Your task to perform on an android device: toggle notifications settings in the gmail app Image 0: 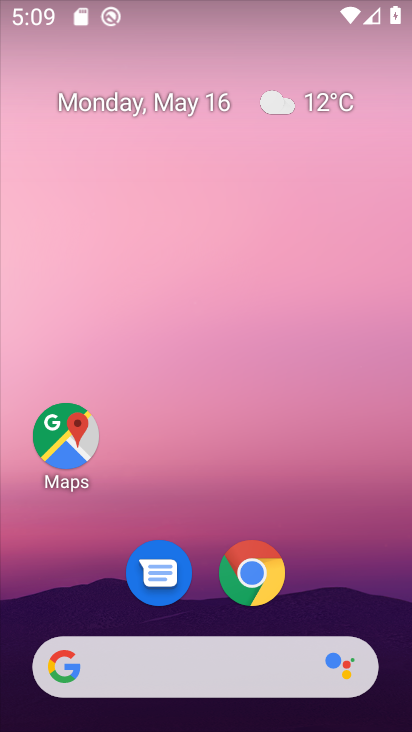
Step 0: drag from (130, 552) to (191, 122)
Your task to perform on an android device: toggle notifications settings in the gmail app Image 1: 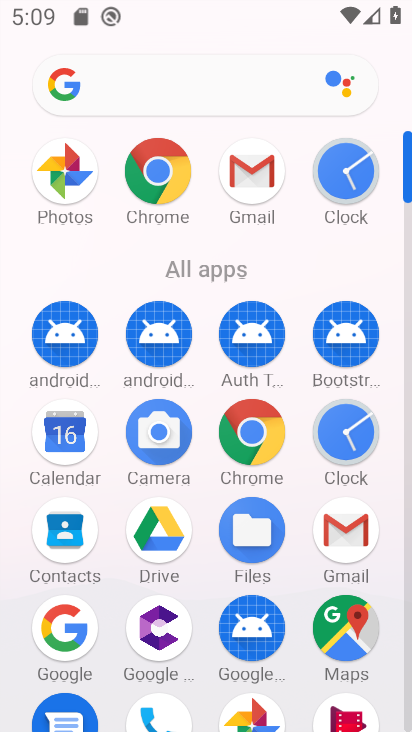
Step 1: click (244, 176)
Your task to perform on an android device: toggle notifications settings in the gmail app Image 2: 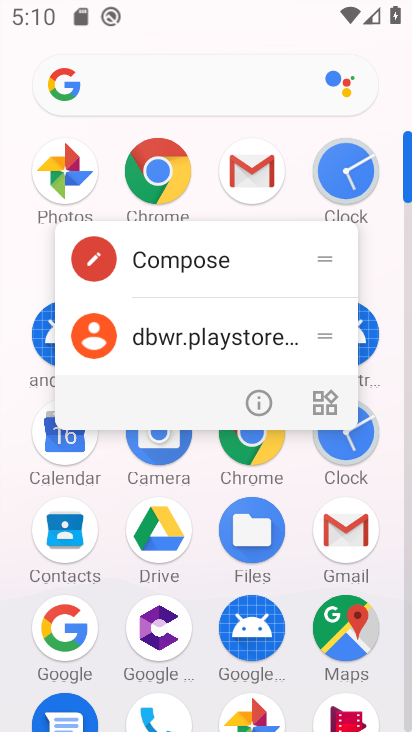
Step 2: click (273, 408)
Your task to perform on an android device: toggle notifications settings in the gmail app Image 3: 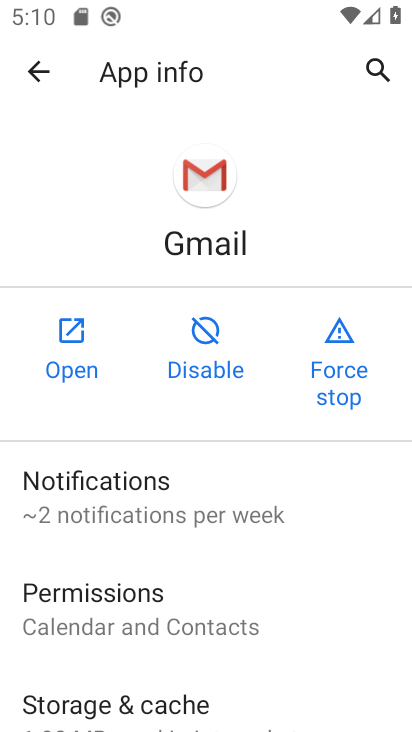
Step 3: click (129, 481)
Your task to perform on an android device: toggle notifications settings in the gmail app Image 4: 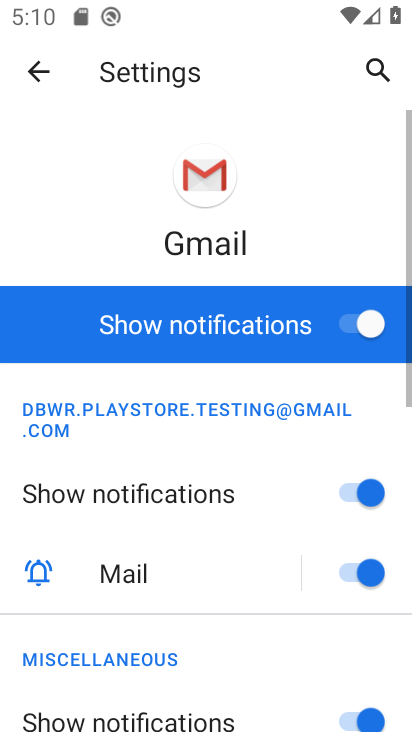
Step 4: click (346, 314)
Your task to perform on an android device: toggle notifications settings in the gmail app Image 5: 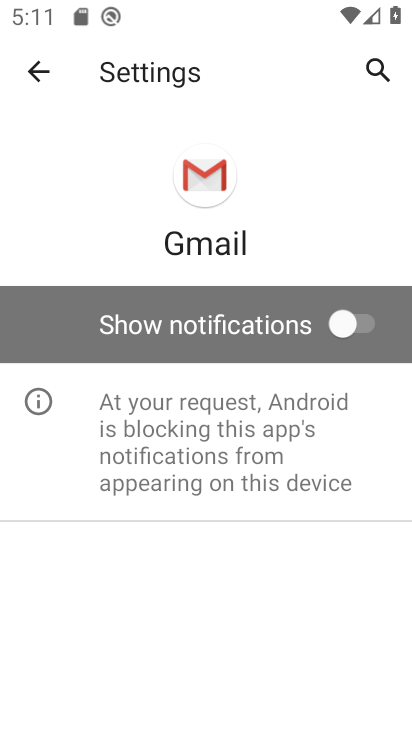
Step 5: task complete